Your task to perform on an android device: Add "usb-b" to the cart on walmart.com Image 0: 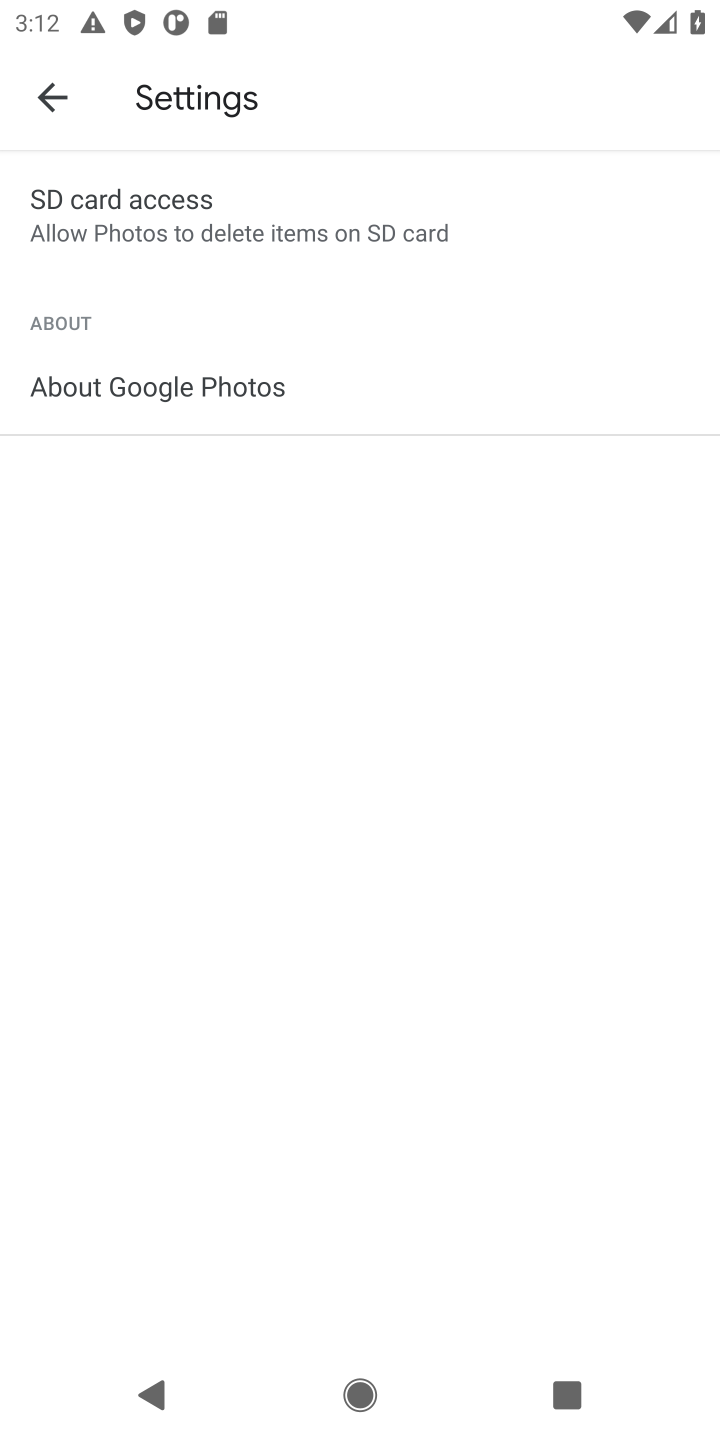
Step 0: press home button
Your task to perform on an android device: Add "usb-b" to the cart on walmart.com Image 1: 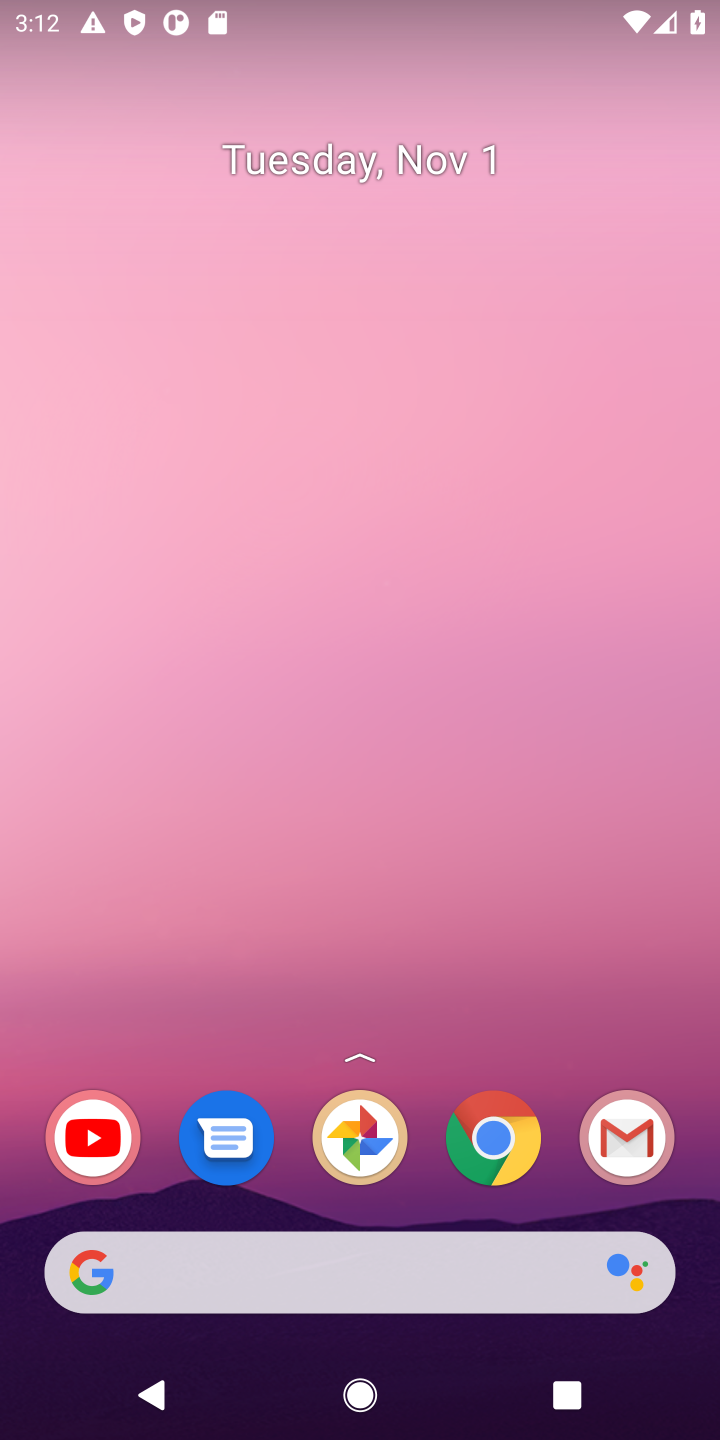
Step 1: click (510, 1125)
Your task to perform on an android device: Add "usb-b" to the cart on walmart.com Image 2: 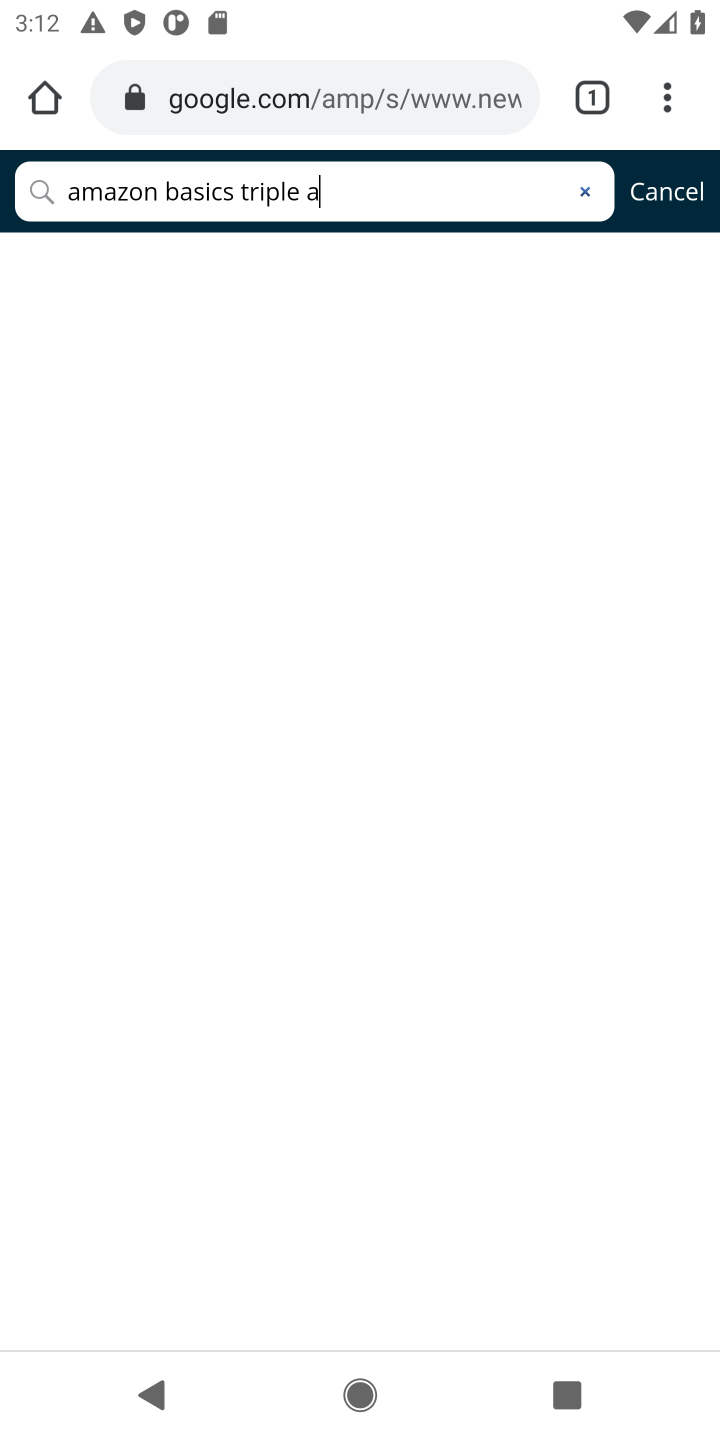
Step 2: click (285, 93)
Your task to perform on an android device: Add "usb-b" to the cart on walmart.com Image 3: 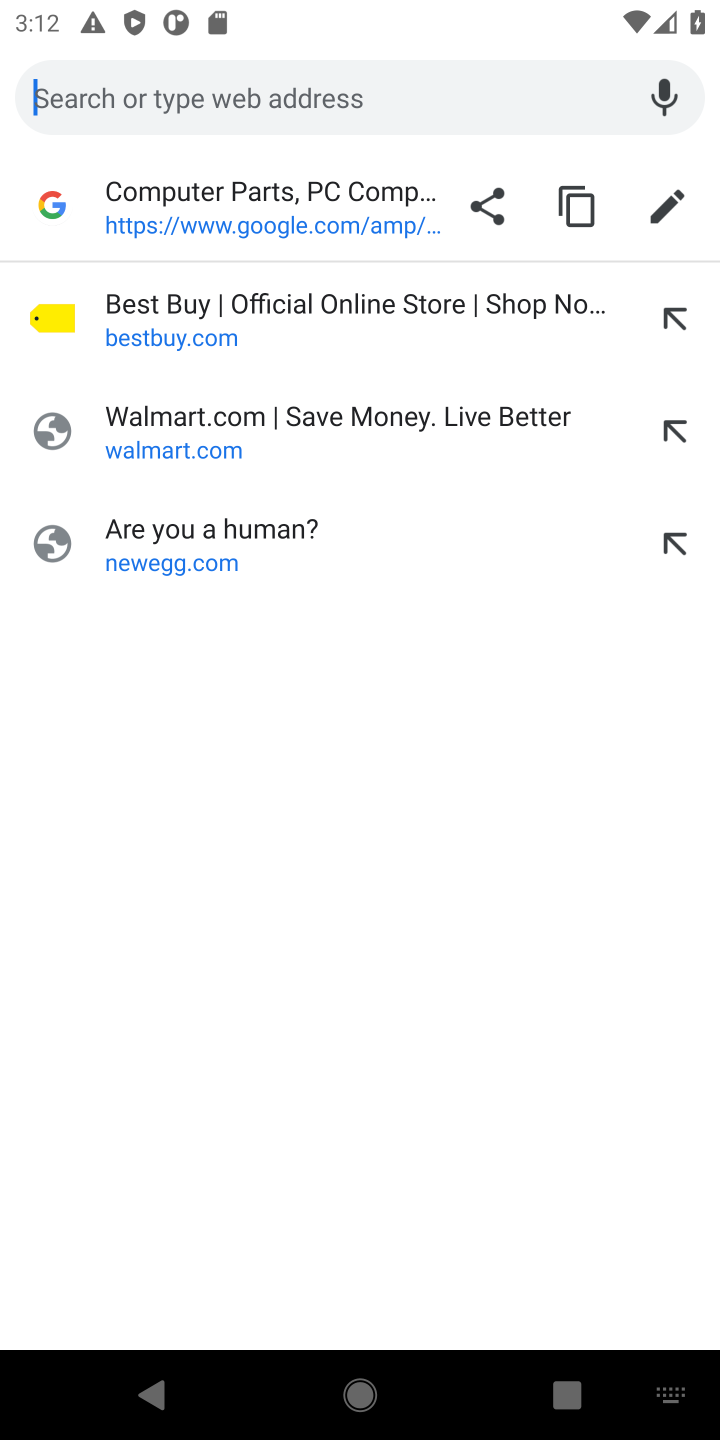
Step 3: type "walmart.com"
Your task to perform on an android device: Add "usb-b" to the cart on walmart.com Image 4: 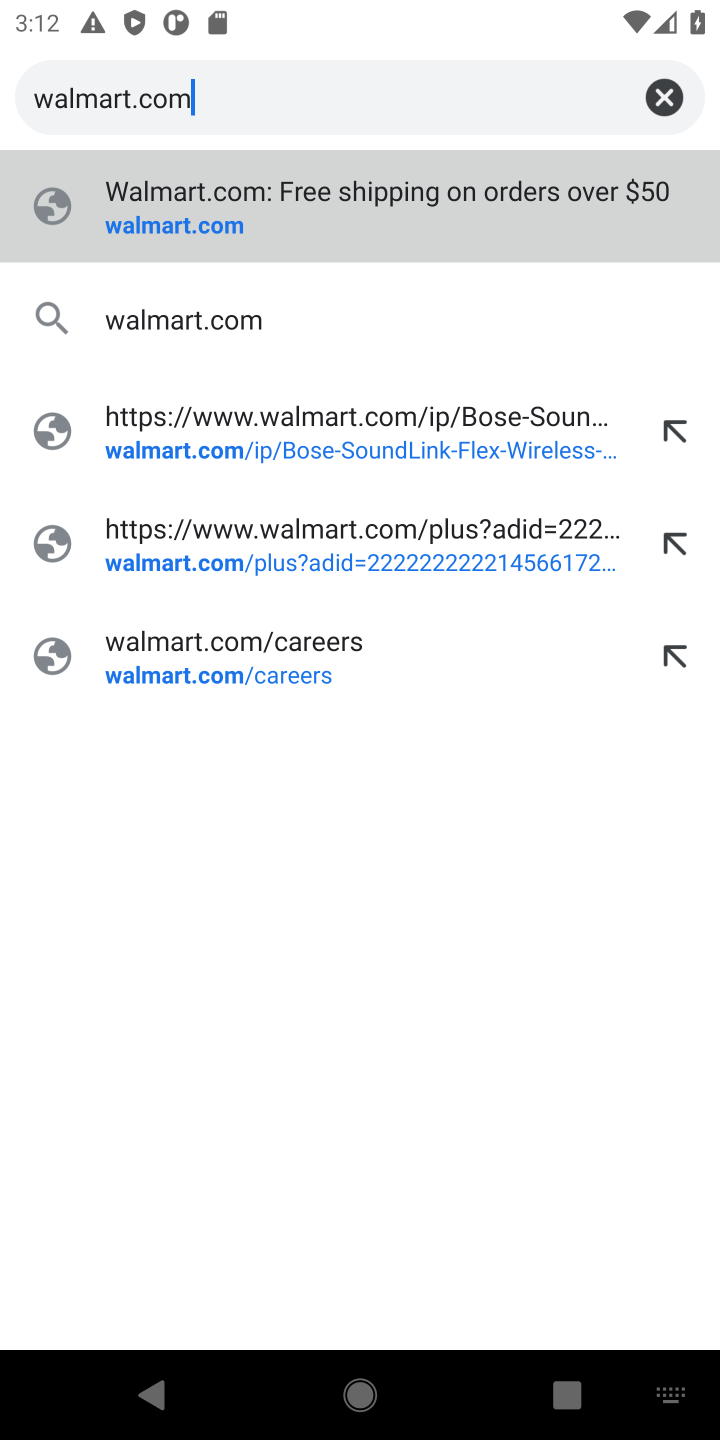
Step 4: click (289, 201)
Your task to perform on an android device: Add "usb-b" to the cart on walmart.com Image 5: 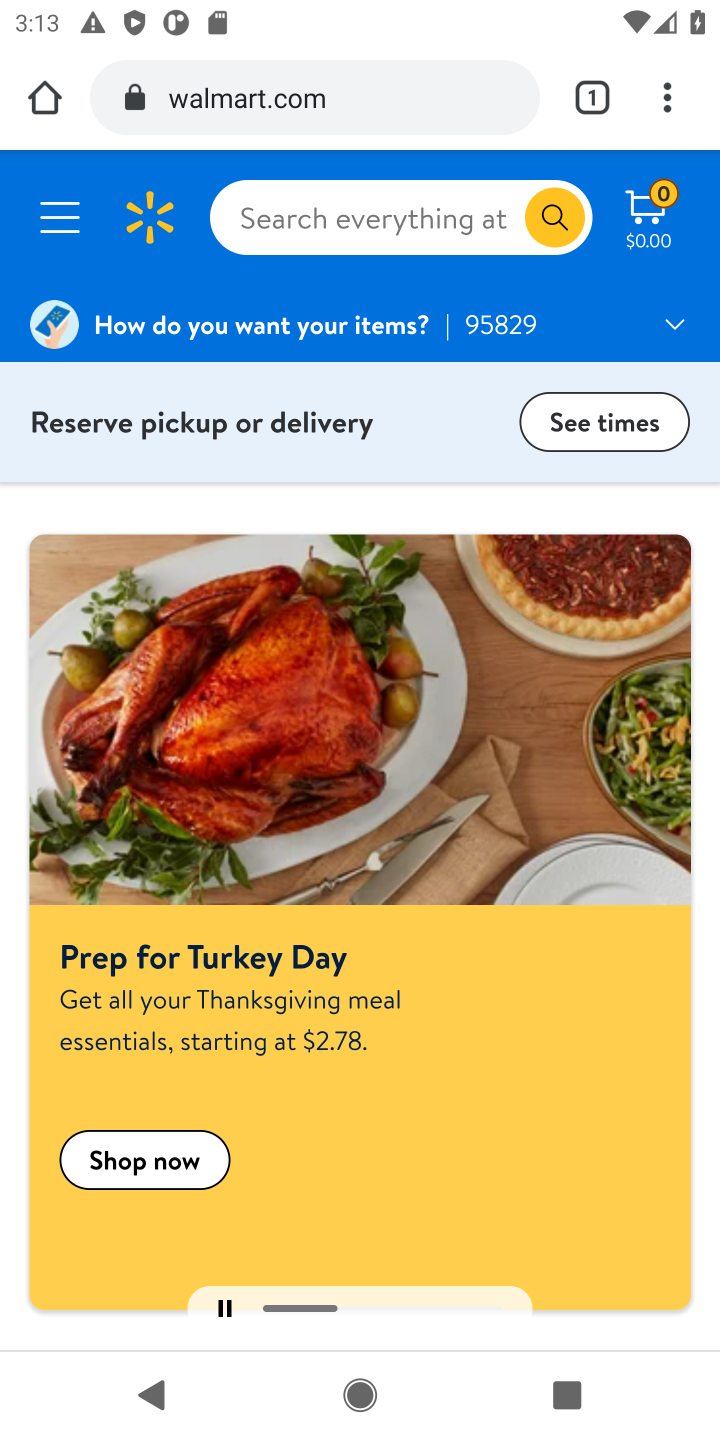
Step 5: click (393, 210)
Your task to perform on an android device: Add "usb-b" to the cart on walmart.com Image 6: 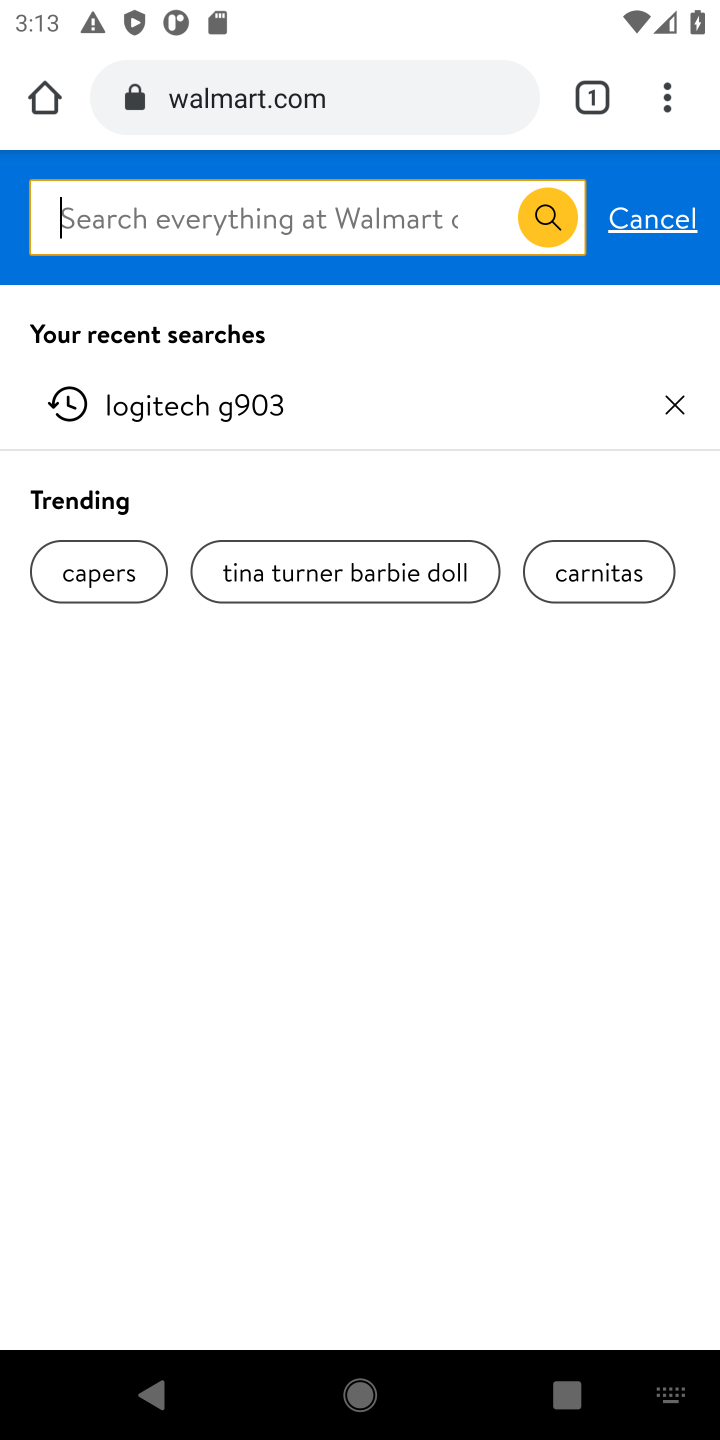
Step 6: type "usb-b"
Your task to perform on an android device: Add "usb-b" to the cart on walmart.com Image 7: 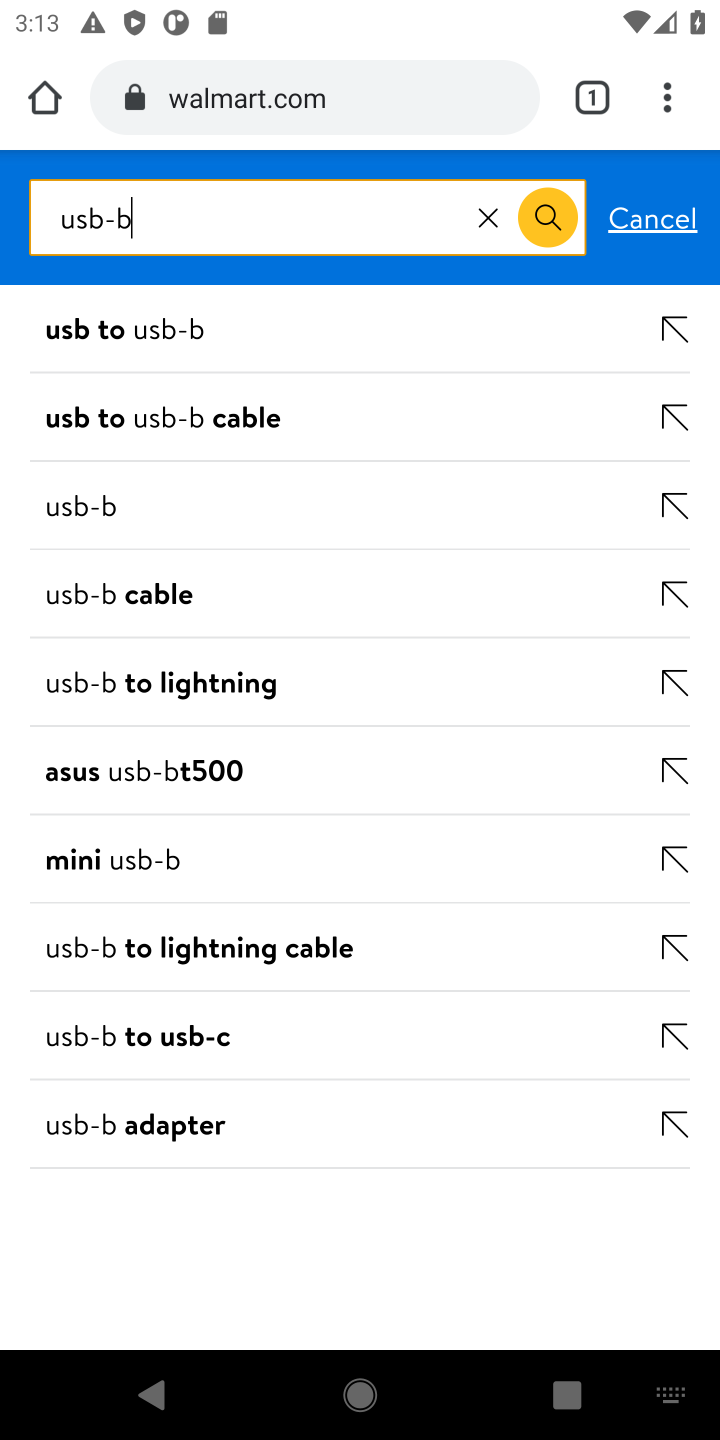
Step 7: click (183, 505)
Your task to perform on an android device: Add "usb-b" to the cart on walmart.com Image 8: 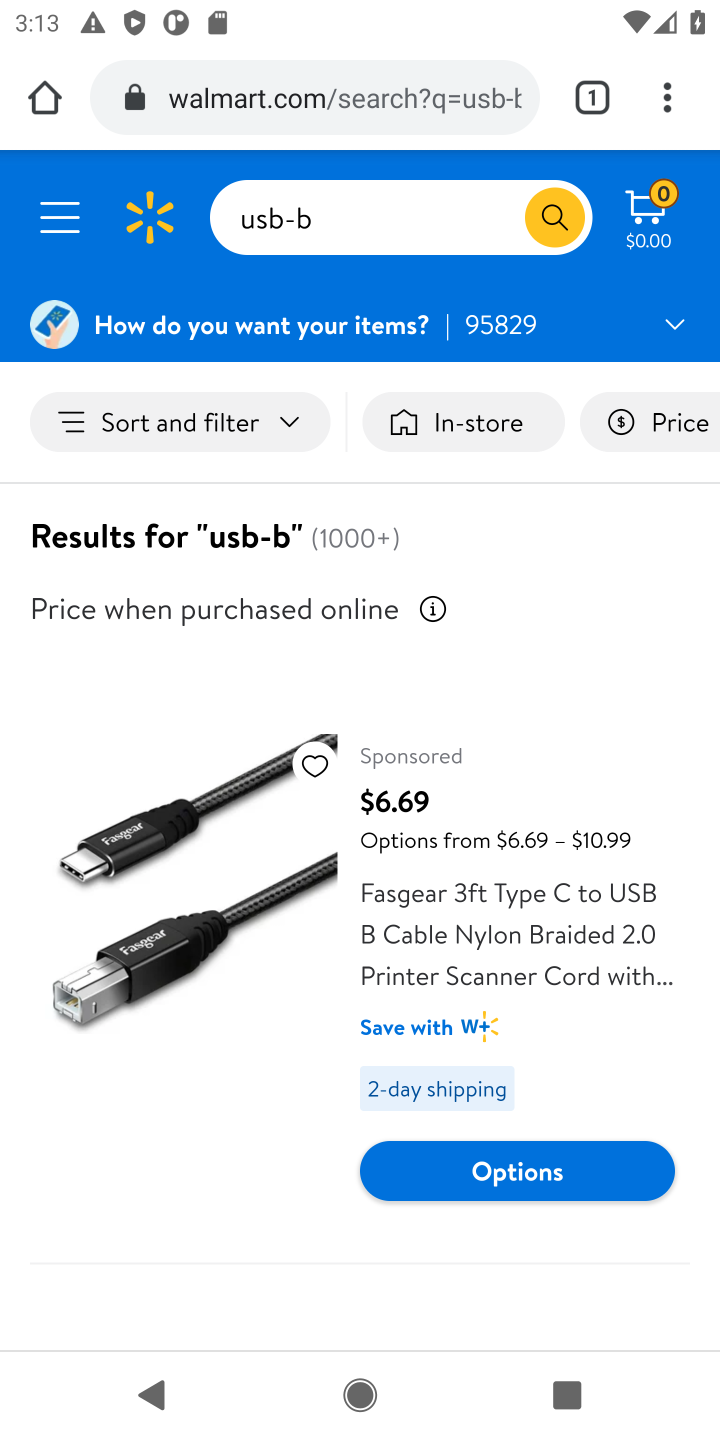
Step 8: click (487, 1165)
Your task to perform on an android device: Add "usb-b" to the cart on walmart.com Image 9: 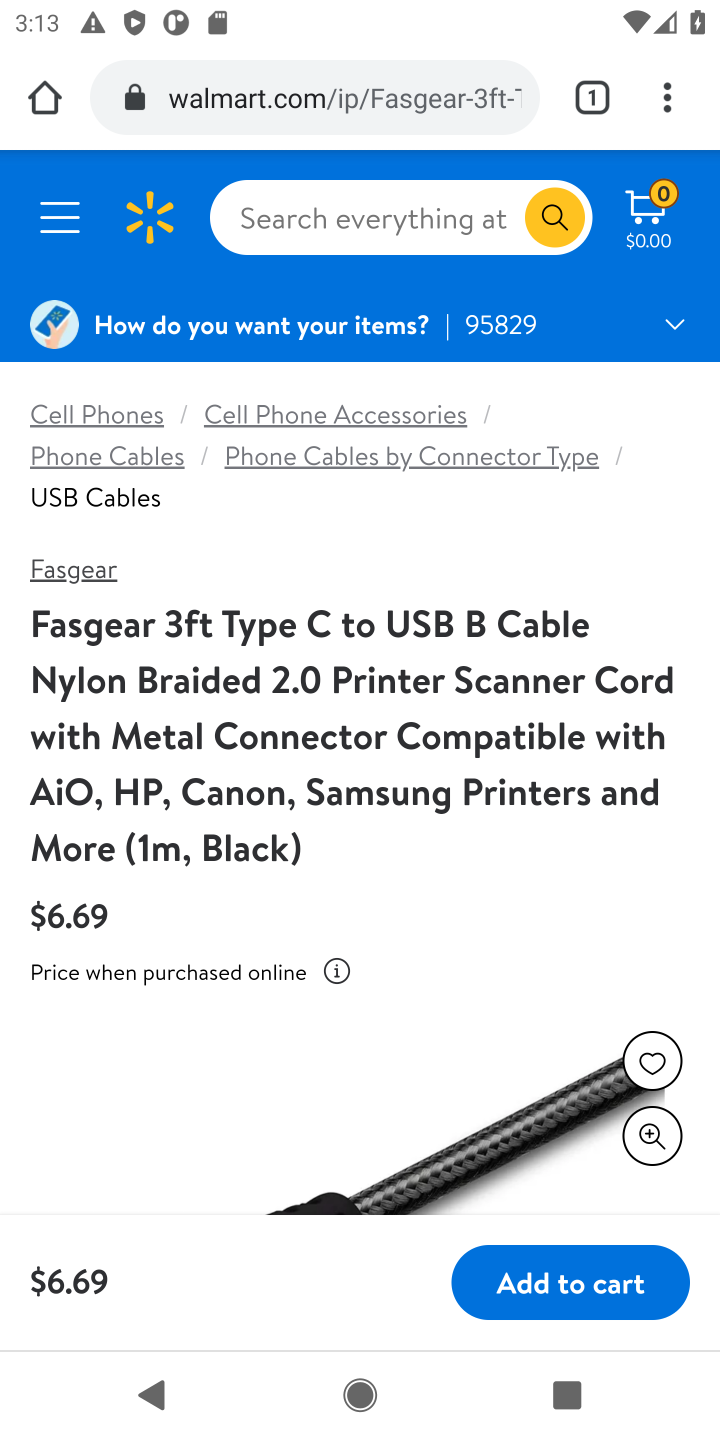
Step 9: click (529, 1288)
Your task to perform on an android device: Add "usb-b" to the cart on walmart.com Image 10: 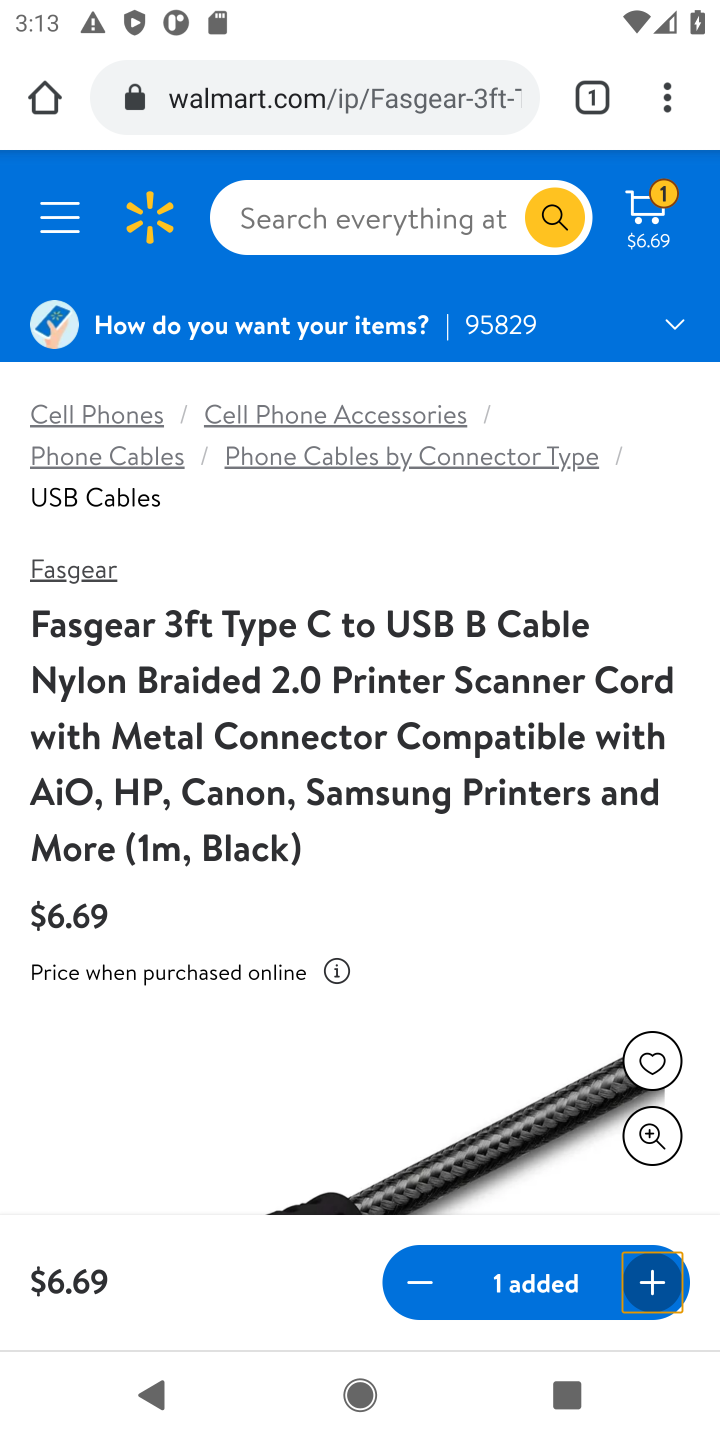
Step 10: task complete